Your task to perform on an android device: Open calendar and show me the first week of next month Image 0: 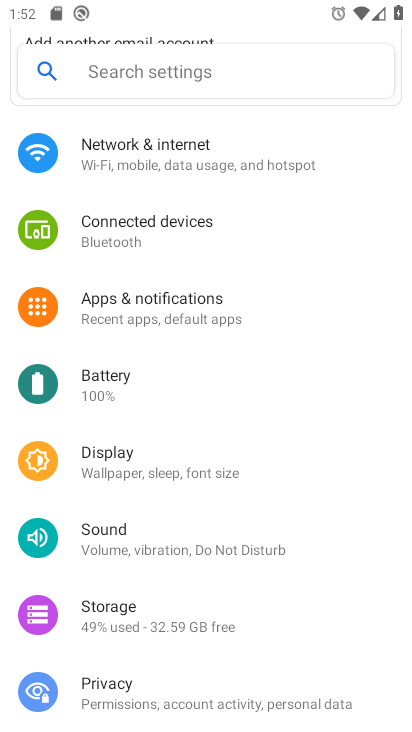
Step 0: press home button
Your task to perform on an android device: Open calendar and show me the first week of next month Image 1: 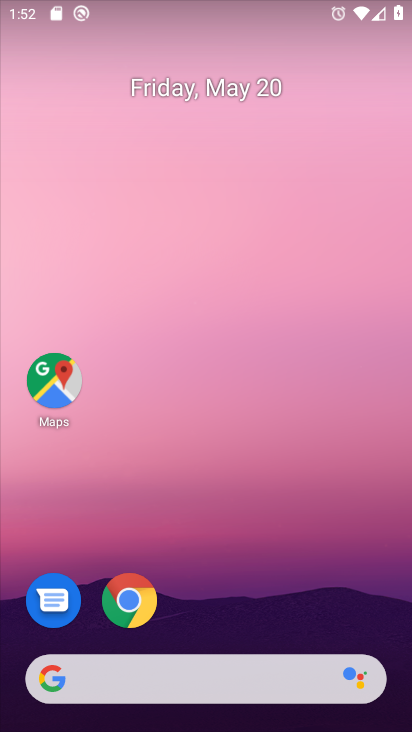
Step 1: drag from (221, 606) to (336, 2)
Your task to perform on an android device: Open calendar and show me the first week of next month Image 2: 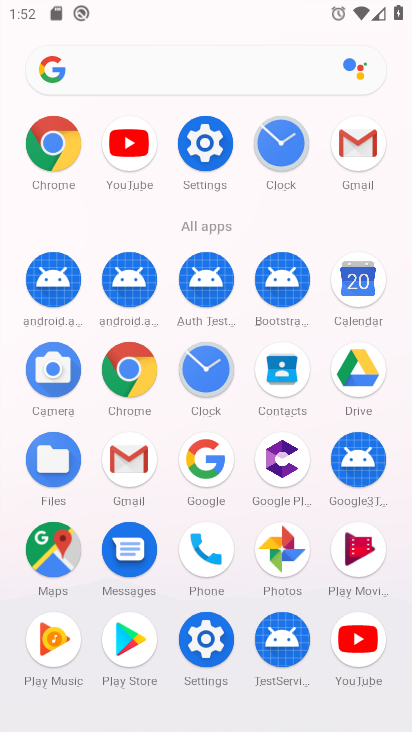
Step 2: click (349, 306)
Your task to perform on an android device: Open calendar and show me the first week of next month Image 3: 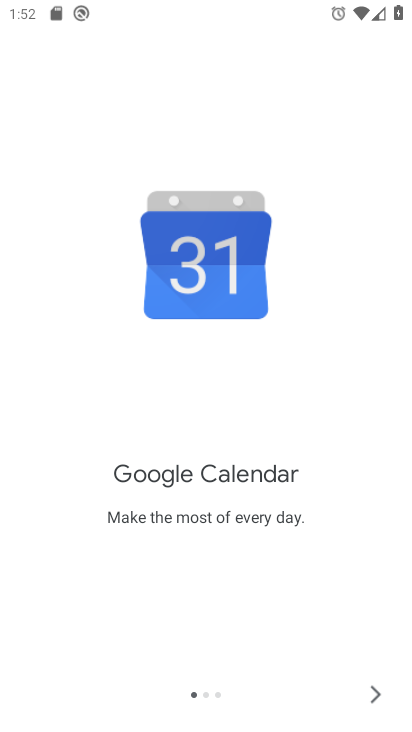
Step 3: click (377, 693)
Your task to perform on an android device: Open calendar and show me the first week of next month Image 4: 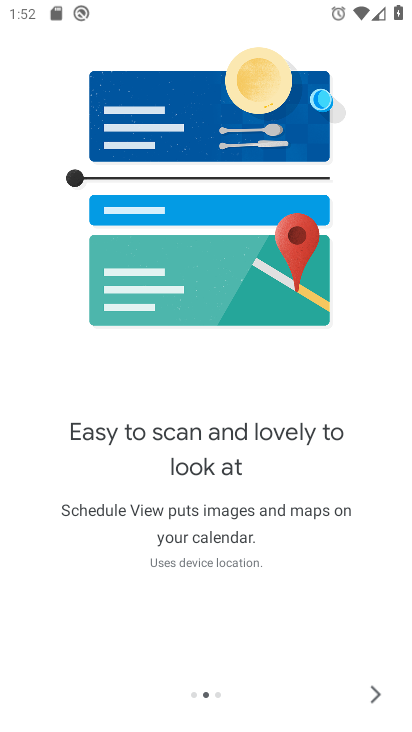
Step 4: click (373, 699)
Your task to perform on an android device: Open calendar and show me the first week of next month Image 5: 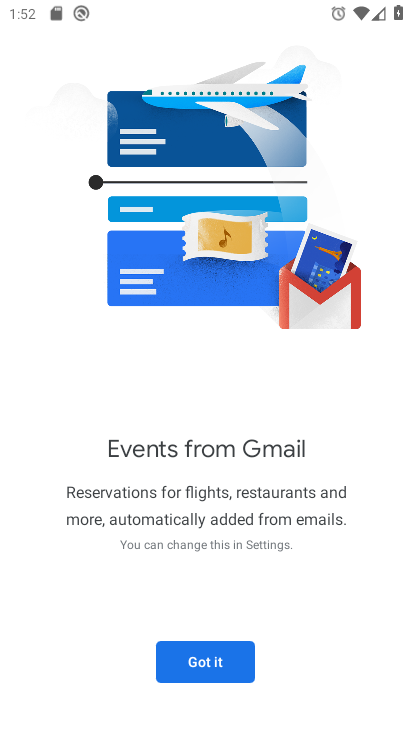
Step 5: click (372, 700)
Your task to perform on an android device: Open calendar and show me the first week of next month Image 6: 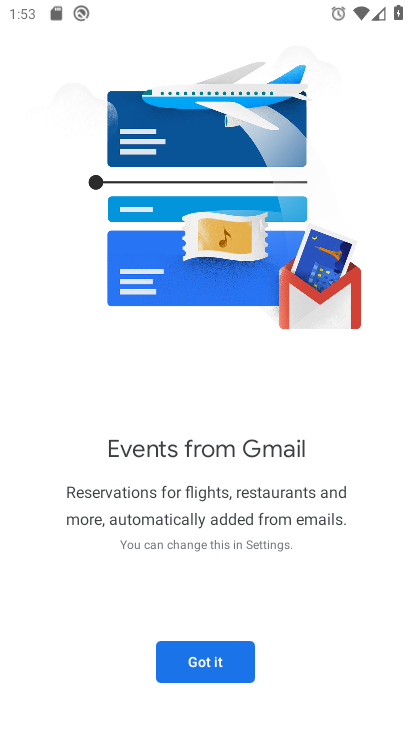
Step 6: click (206, 663)
Your task to perform on an android device: Open calendar and show me the first week of next month Image 7: 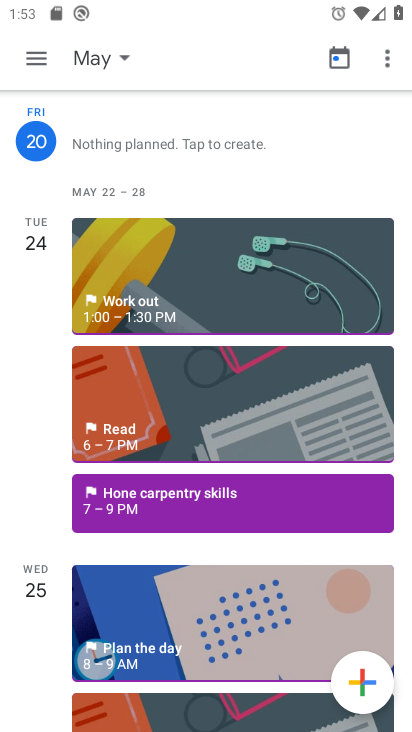
Step 7: click (38, 50)
Your task to perform on an android device: Open calendar and show me the first week of next month Image 8: 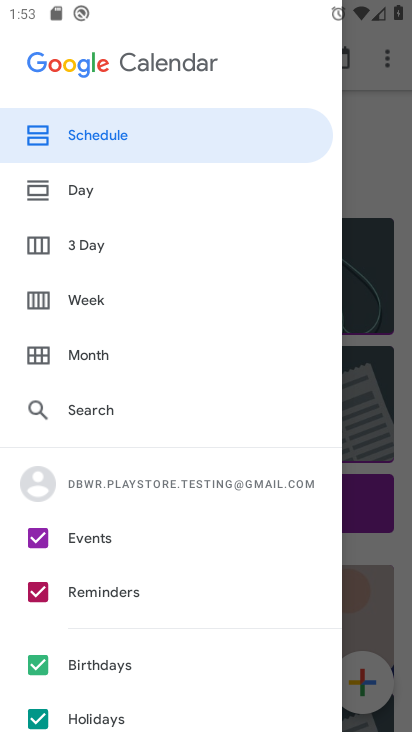
Step 8: click (84, 304)
Your task to perform on an android device: Open calendar and show me the first week of next month Image 9: 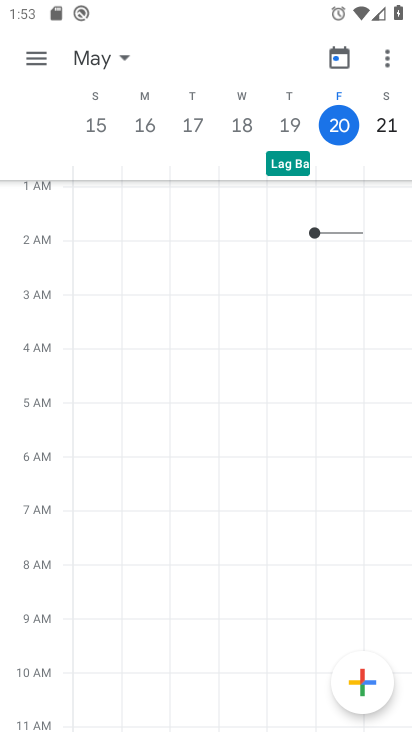
Step 9: task complete